Your task to perform on an android device: Open Maps and search for coffee Image 0: 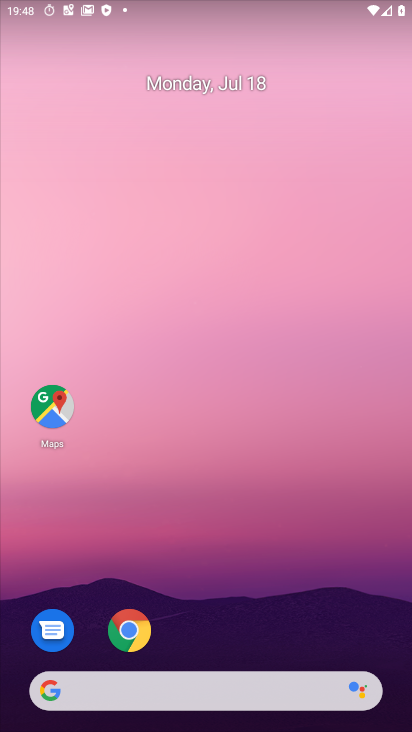
Step 0: drag from (116, 272) to (63, 65)
Your task to perform on an android device: Open Maps and search for coffee Image 1: 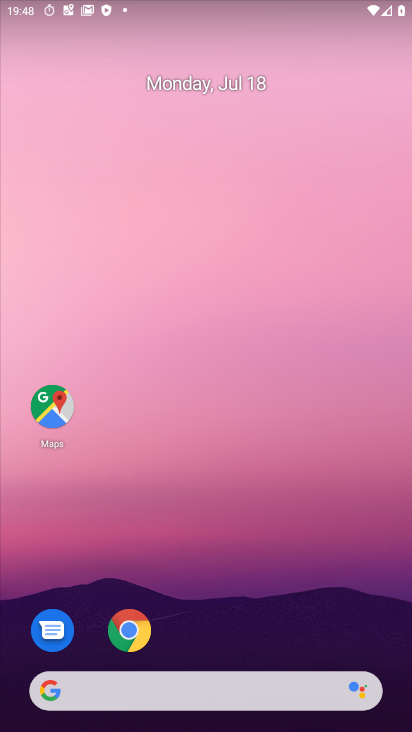
Step 1: drag from (318, 601) to (261, 25)
Your task to perform on an android device: Open Maps and search for coffee Image 2: 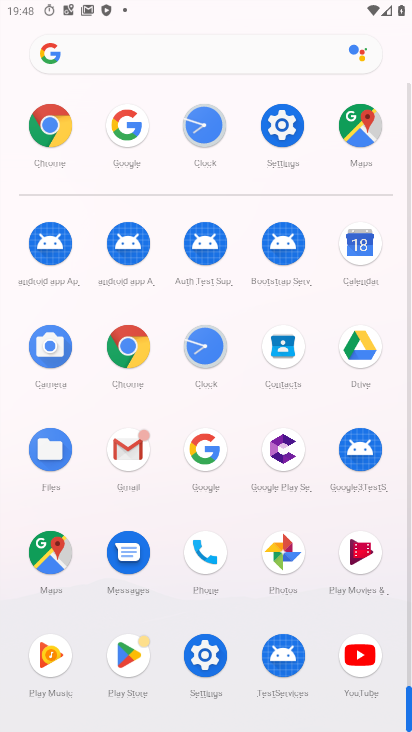
Step 2: click (31, 554)
Your task to perform on an android device: Open Maps and search for coffee Image 3: 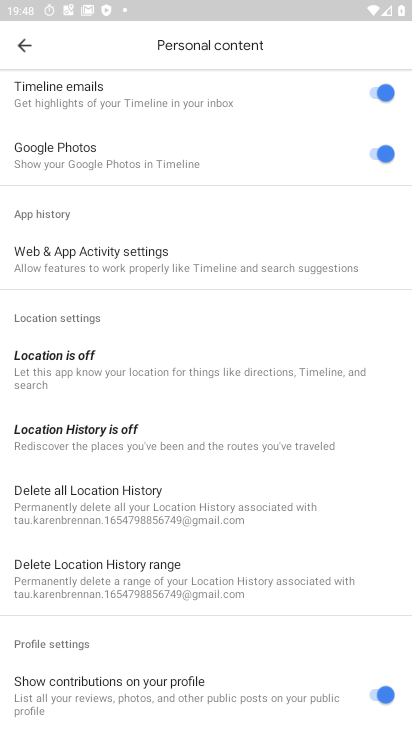
Step 3: click (30, 41)
Your task to perform on an android device: Open Maps and search for coffee Image 4: 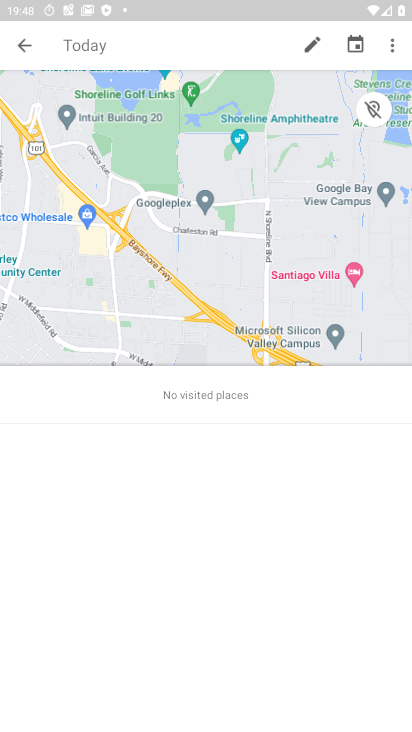
Step 4: click (34, 44)
Your task to perform on an android device: Open Maps and search for coffee Image 5: 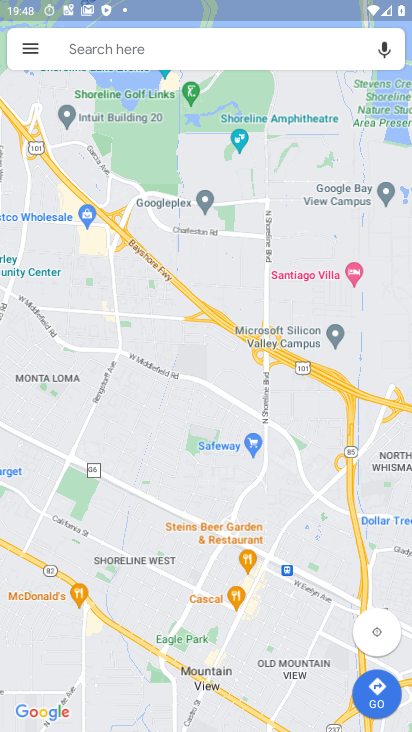
Step 5: click (153, 49)
Your task to perform on an android device: Open Maps and search for coffee Image 6: 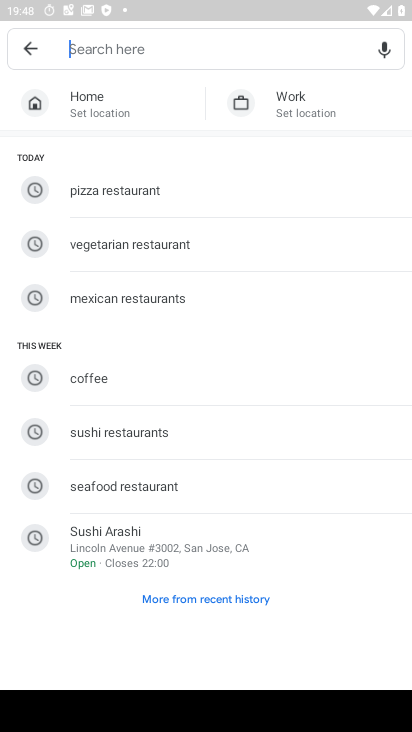
Step 6: click (105, 380)
Your task to perform on an android device: Open Maps and search for coffee Image 7: 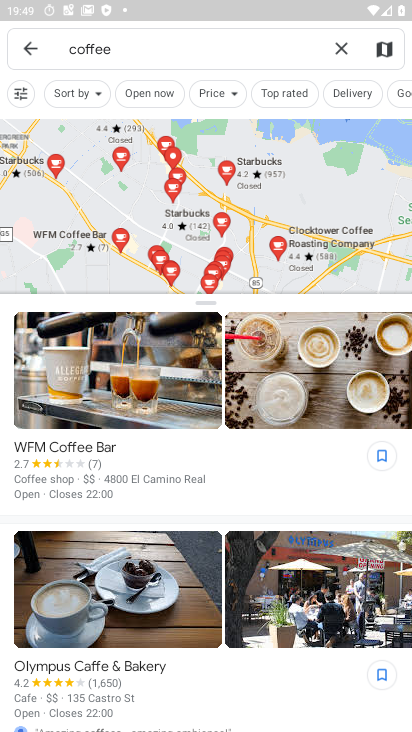
Step 7: task complete